Your task to perform on an android device: Is it going to rain today? Image 0: 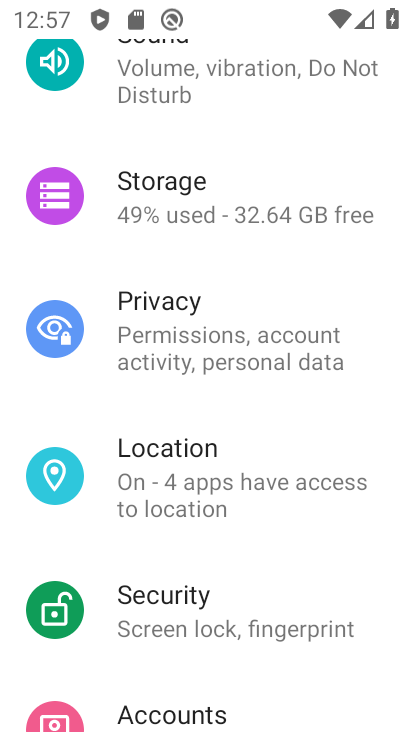
Step 0: press home button
Your task to perform on an android device: Is it going to rain today? Image 1: 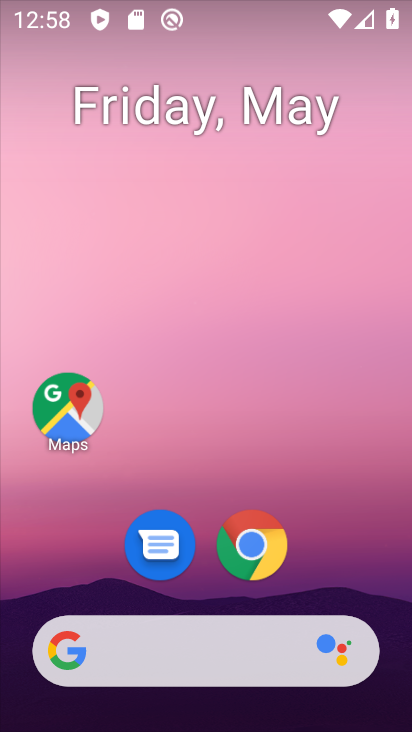
Step 1: drag from (17, 267) to (411, 230)
Your task to perform on an android device: Is it going to rain today? Image 2: 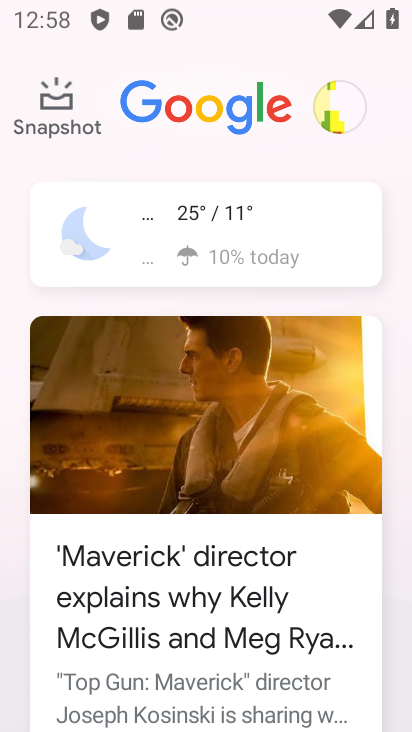
Step 2: click (251, 233)
Your task to perform on an android device: Is it going to rain today? Image 3: 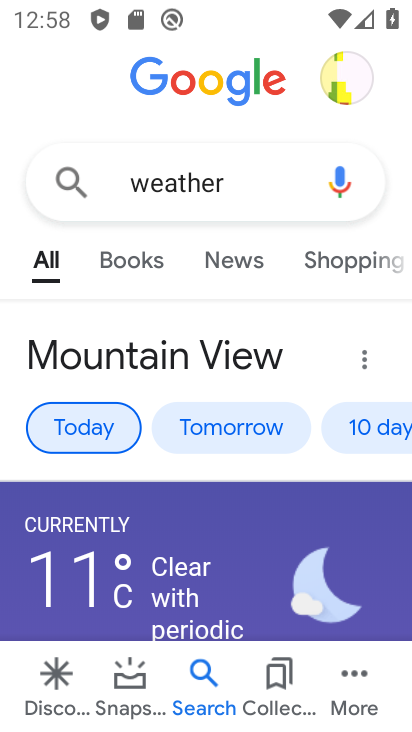
Step 3: task complete